Your task to perform on an android device: move a message to another label in the gmail app Image 0: 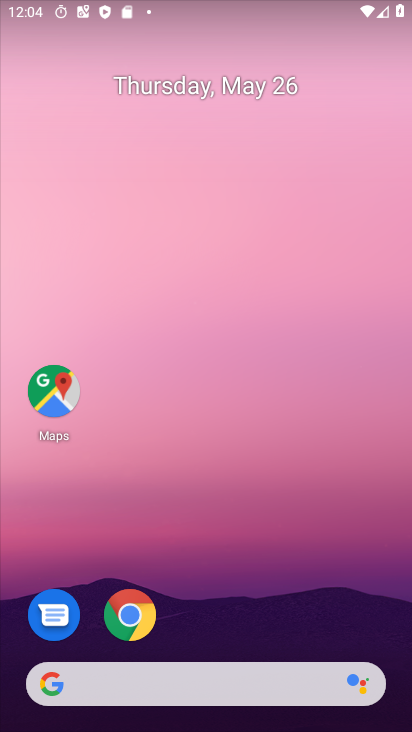
Step 0: drag from (238, 637) to (214, 260)
Your task to perform on an android device: move a message to another label in the gmail app Image 1: 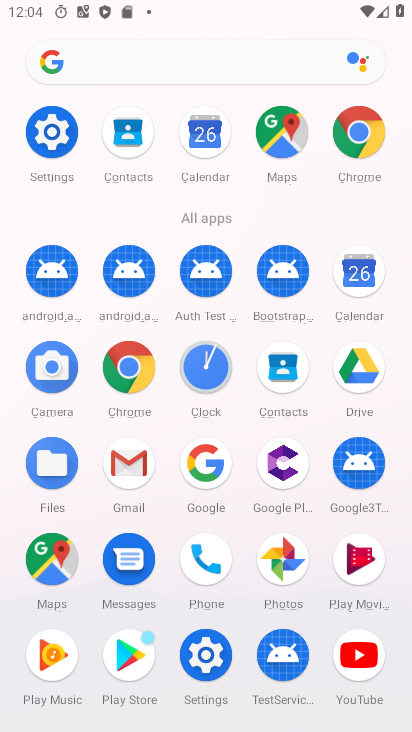
Step 1: click (134, 455)
Your task to perform on an android device: move a message to another label in the gmail app Image 2: 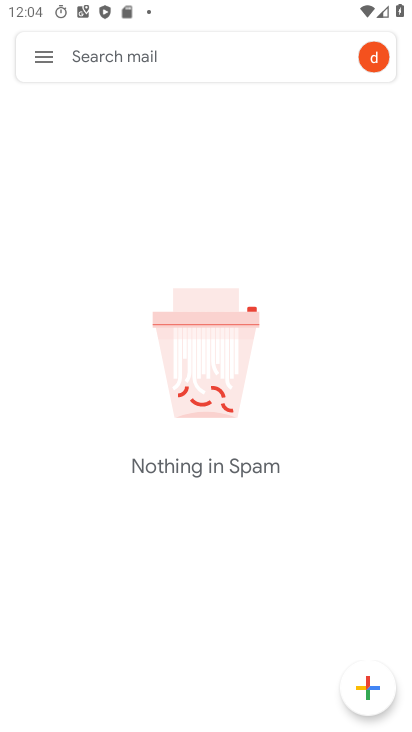
Step 2: click (38, 56)
Your task to perform on an android device: move a message to another label in the gmail app Image 3: 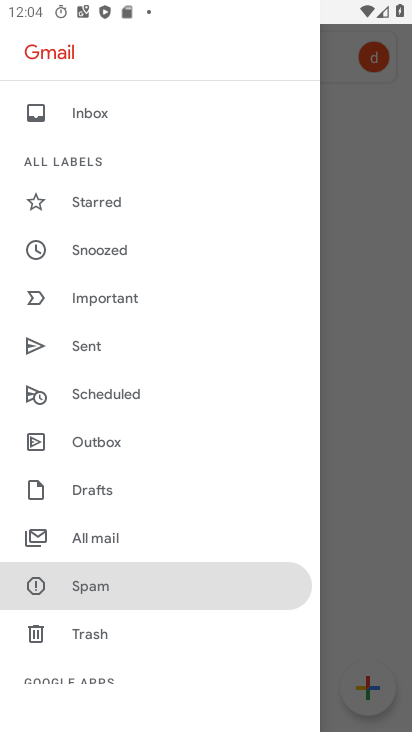
Step 3: click (91, 110)
Your task to perform on an android device: move a message to another label in the gmail app Image 4: 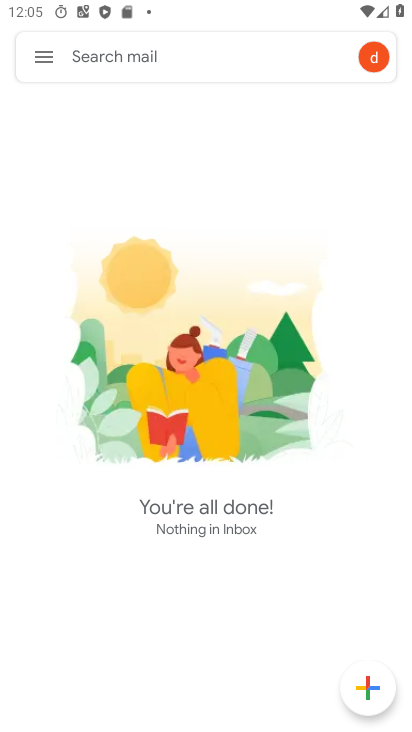
Step 4: task complete